Your task to perform on an android device: Toggle the flashlight Image 0: 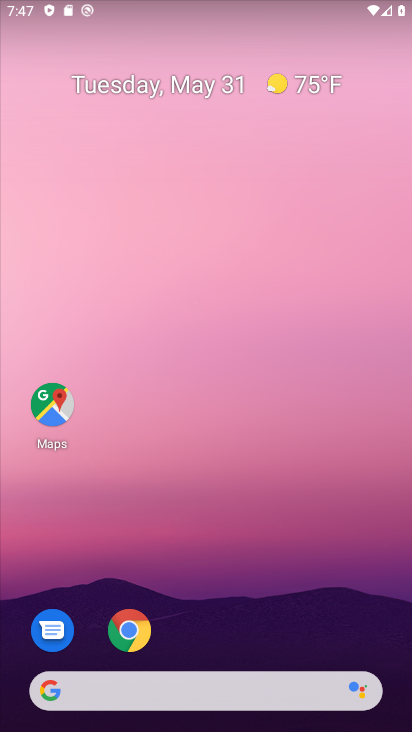
Step 0: drag from (258, 24) to (240, 541)
Your task to perform on an android device: Toggle the flashlight Image 1: 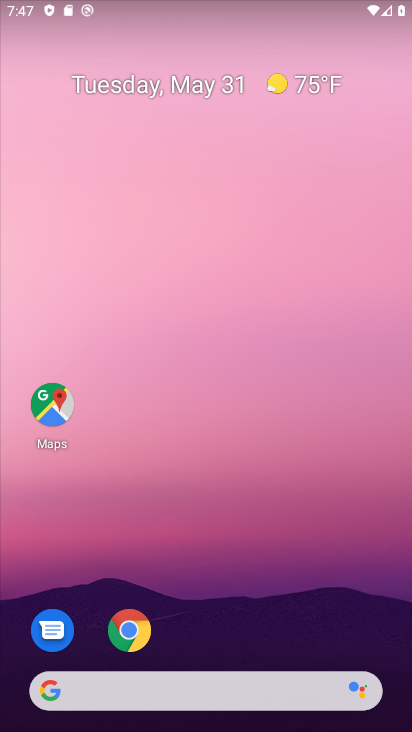
Step 1: task complete